Your task to perform on an android device: Go to Android settings Image 0: 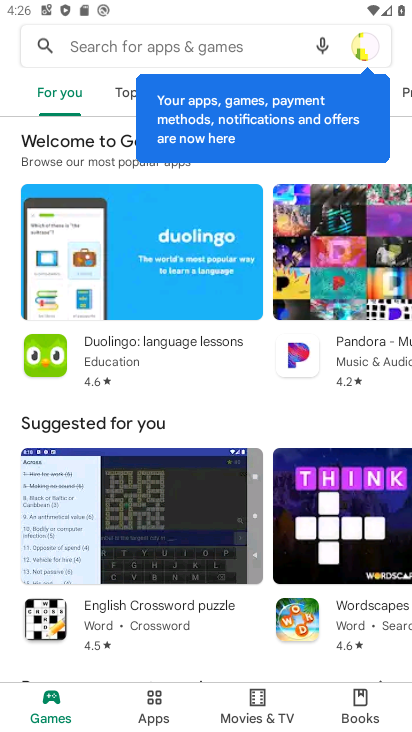
Step 0: press home button
Your task to perform on an android device: Go to Android settings Image 1: 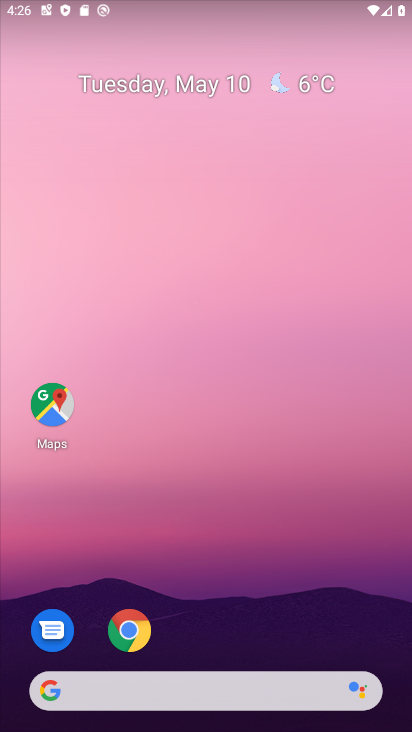
Step 1: drag from (254, 637) to (297, 219)
Your task to perform on an android device: Go to Android settings Image 2: 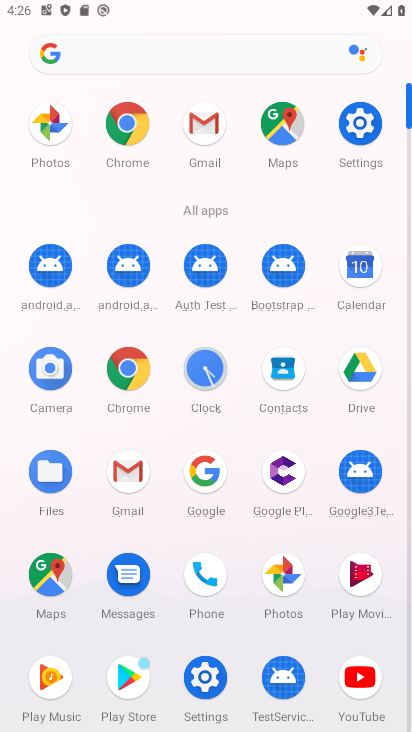
Step 2: click (352, 122)
Your task to perform on an android device: Go to Android settings Image 3: 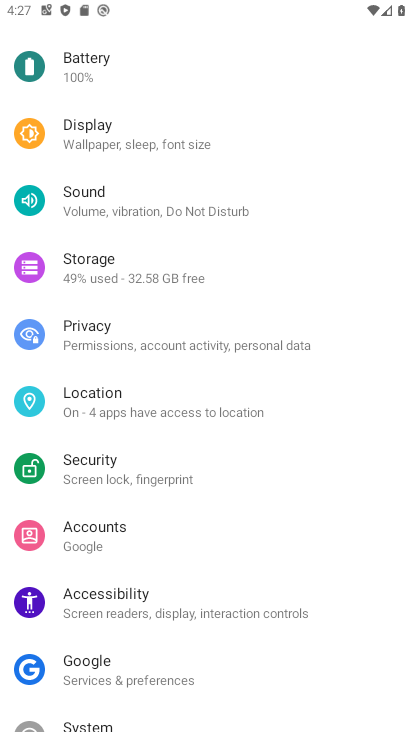
Step 3: task complete